Your task to perform on an android device: change keyboard looks Image 0: 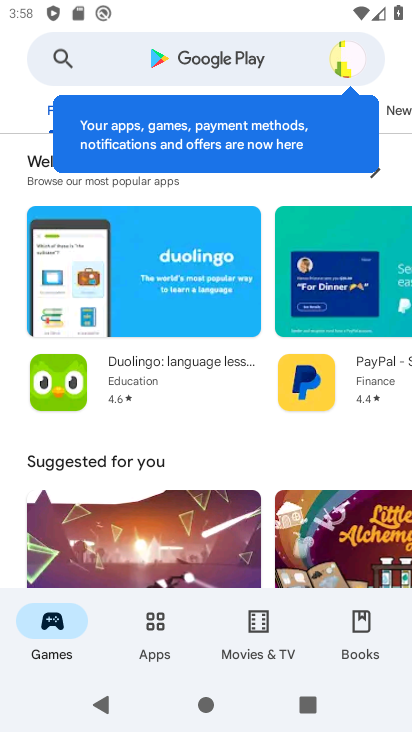
Step 0: press home button
Your task to perform on an android device: change keyboard looks Image 1: 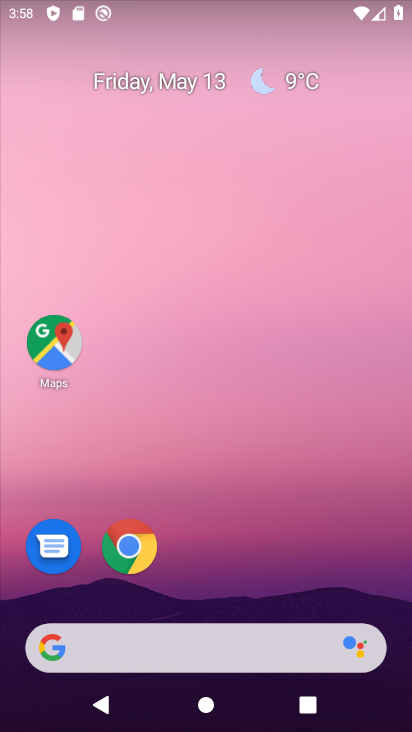
Step 1: drag from (207, 608) to (193, 6)
Your task to perform on an android device: change keyboard looks Image 2: 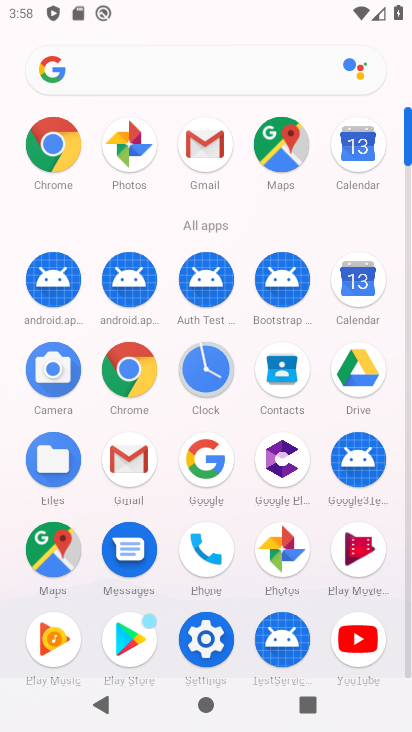
Step 2: click (202, 638)
Your task to perform on an android device: change keyboard looks Image 3: 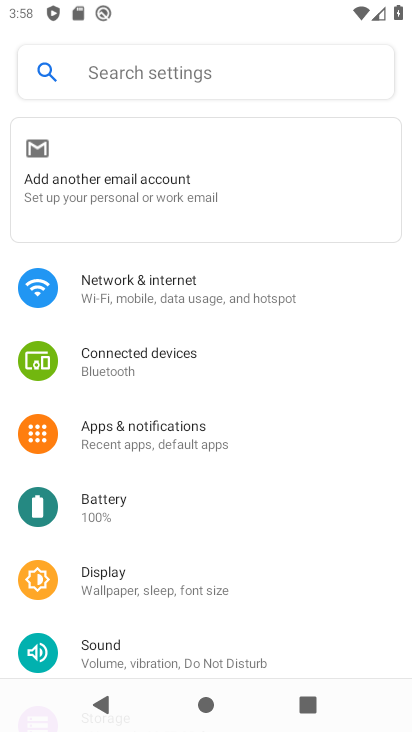
Step 3: drag from (186, 585) to (174, 307)
Your task to perform on an android device: change keyboard looks Image 4: 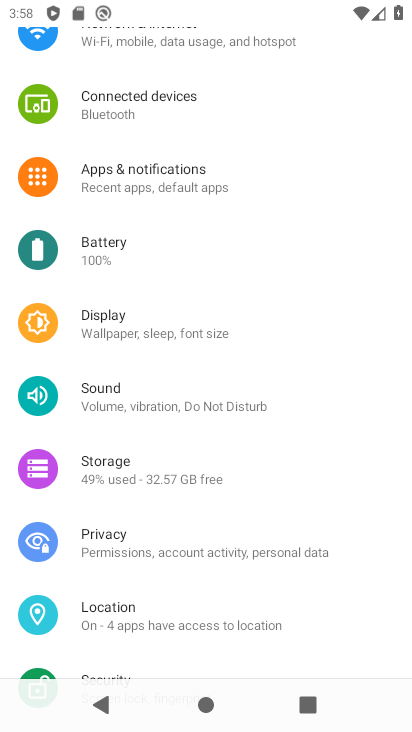
Step 4: drag from (116, 578) to (93, 149)
Your task to perform on an android device: change keyboard looks Image 5: 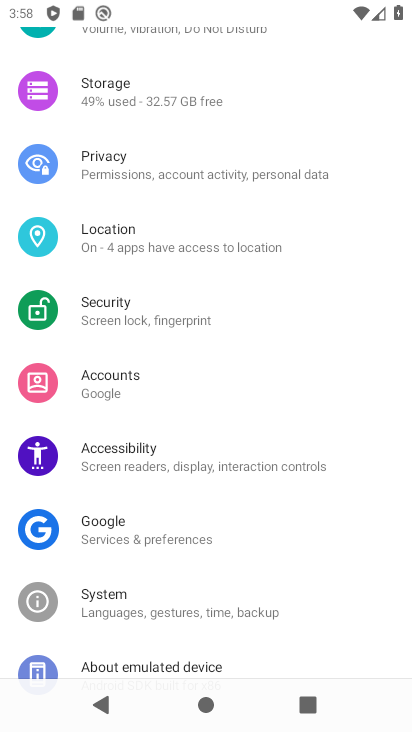
Step 5: click (122, 603)
Your task to perform on an android device: change keyboard looks Image 6: 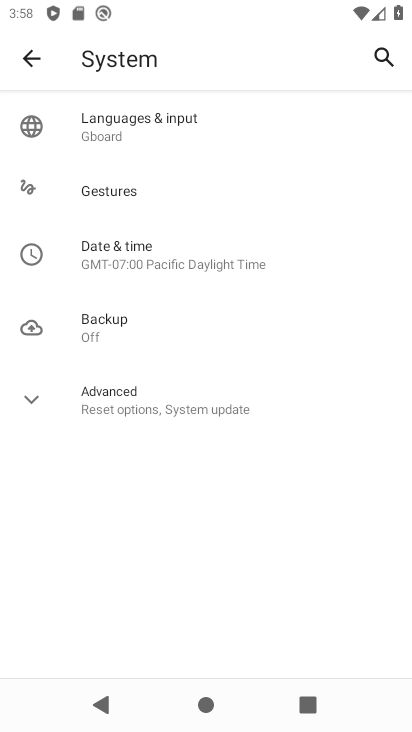
Step 6: click (158, 393)
Your task to perform on an android device: change keyboard looks Image 7: 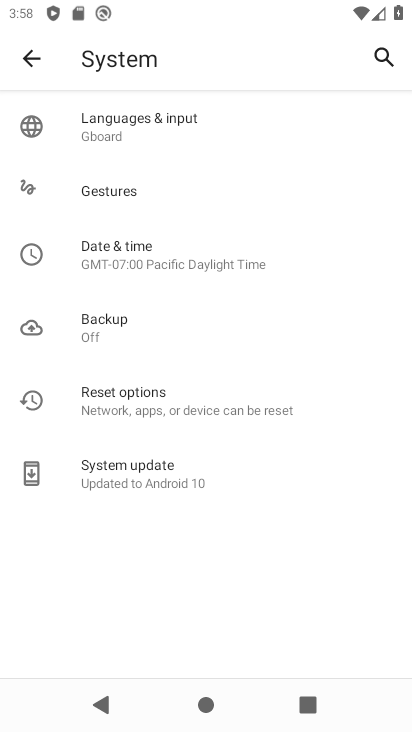
Step 7: click (164, 126)
Your task to perform on an android device: change keyboard looks Image 8: 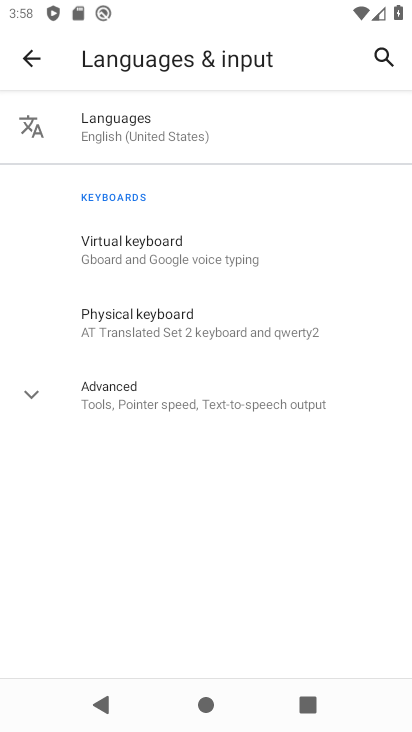
Step 8: click (144, 276)
Your task to perform on an android device: change keyboard looks Image 9: 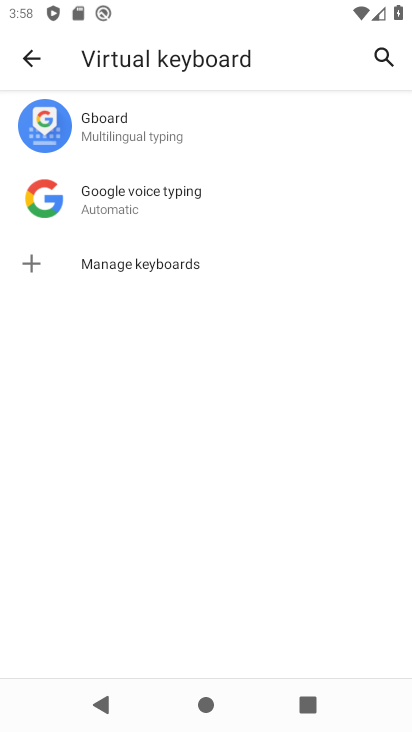
Step 9: click (114, 123)
Your task to perform on an android device: change keyboard looks Image 10: 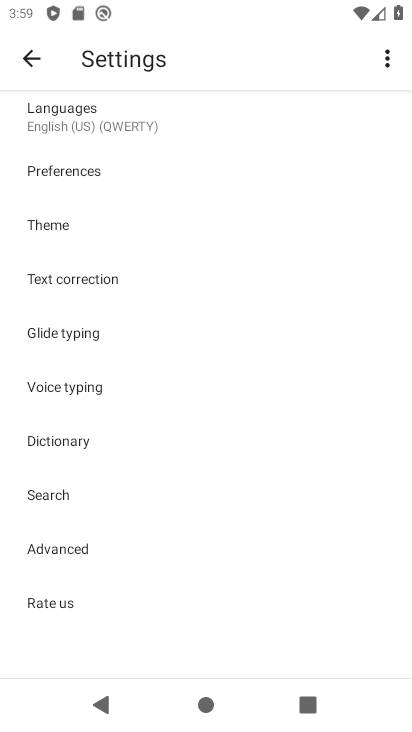
Step 10: click (41, 213)
Your task to perform on an android device: change keyboard looks Image 11: 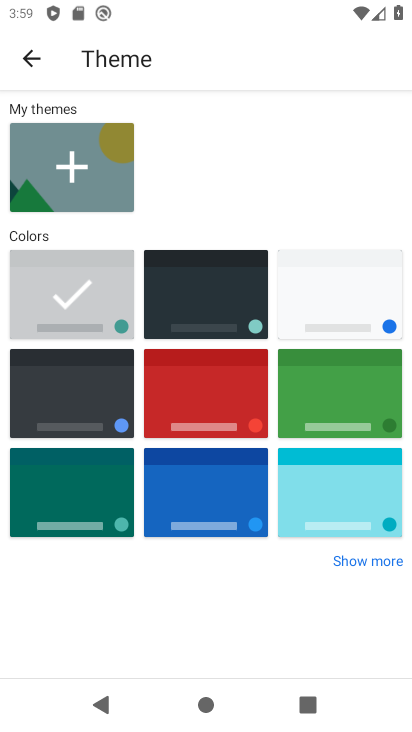
Step 11: click (163, 284)
Your task to perform on an android device: change keyboard looks Image 12: 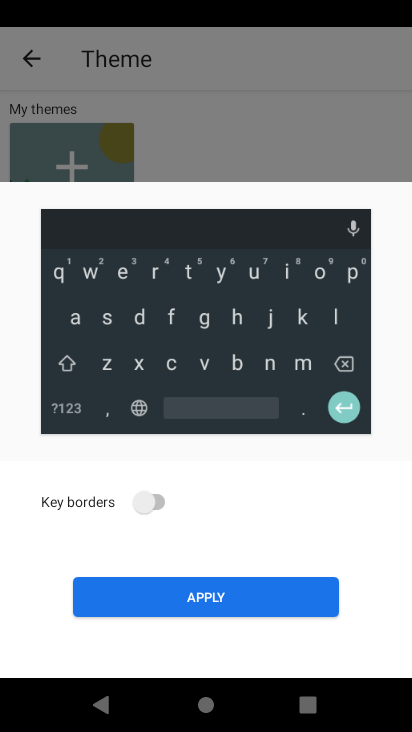
Step 12: click (182, 588)
Your task to perform on an android device: change keyboard looks Image 13: 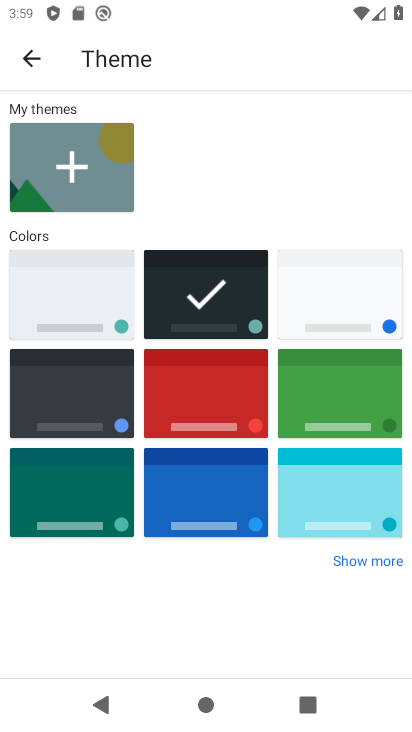
Step 13: task complete